Your task to perform on an android device: uninstall "Microsoft Outlook" Image 0: 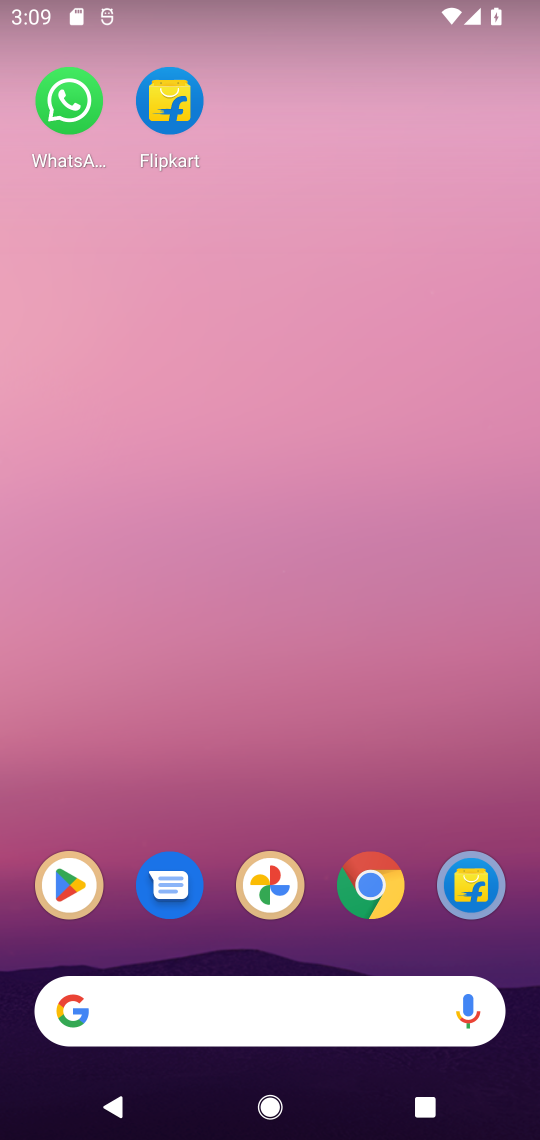
Step 0: click (75, 884)
Your task to perform on an android device: uninstall "Microsoft Outlook" Image 1: 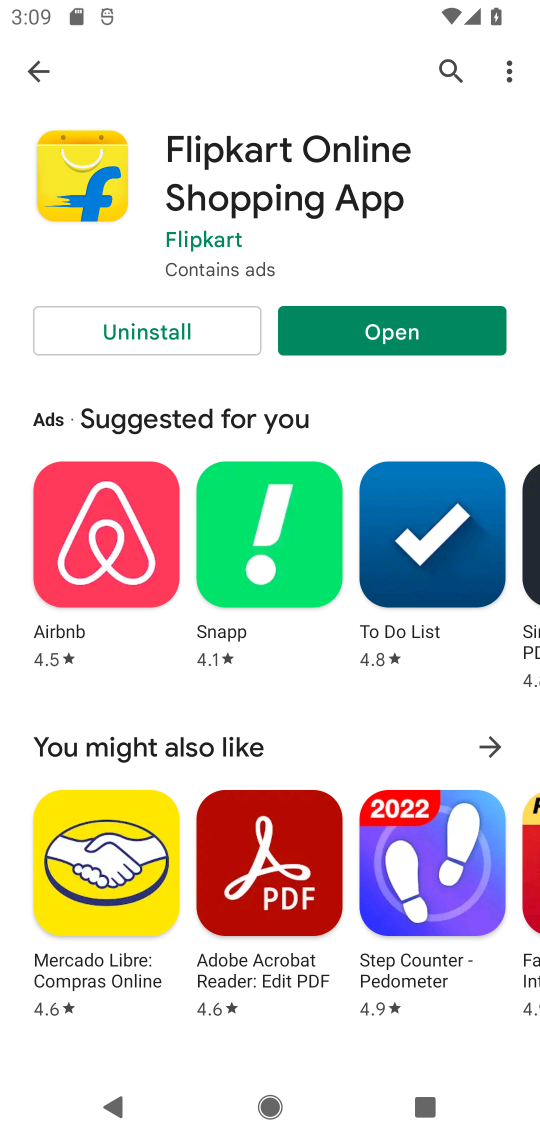
Step 1: click (442, 77)
Your task to perform on an android device: uninstall "Microsoft Outlook" Image 2: 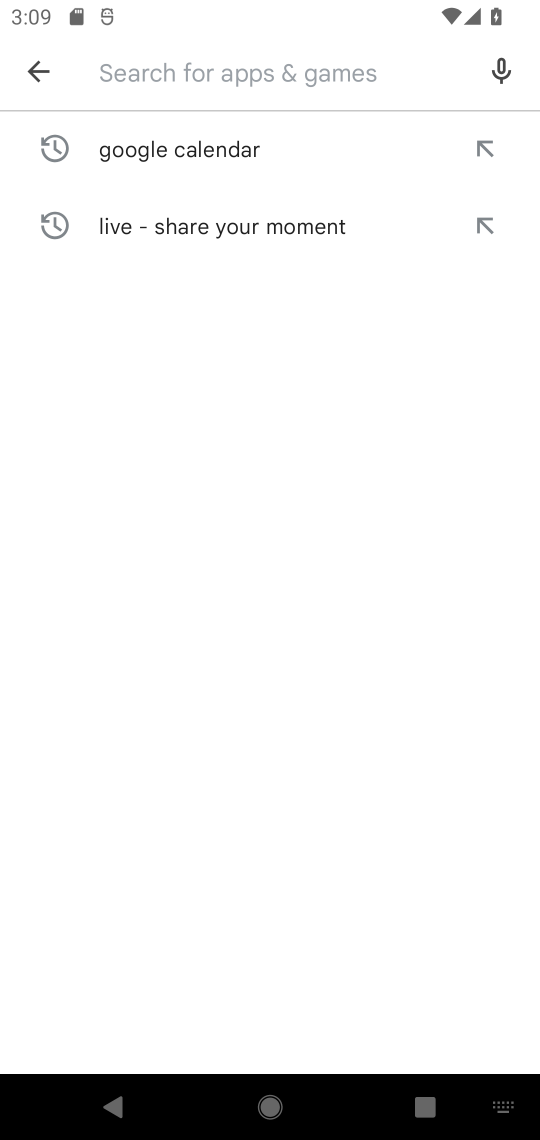
Step 2: type "Microsoft Outlook"
Your task to perform on an android device: uninstall "Microsoft Outlook" Image 3: 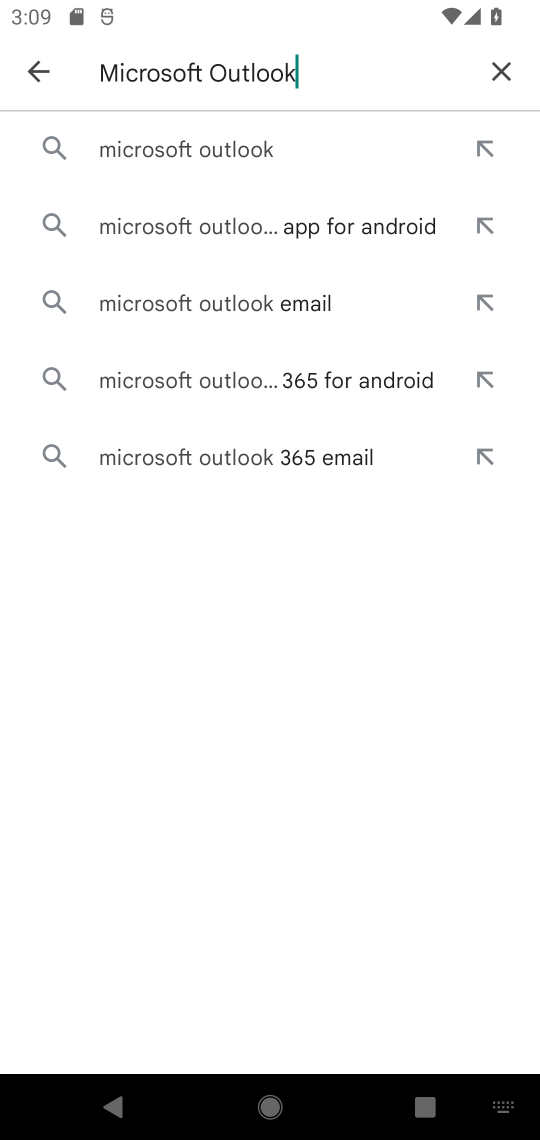
Step 3: click (231, 156)
Your task to perform on an android device: uninstall "Microsoft Outlook" Image 4: 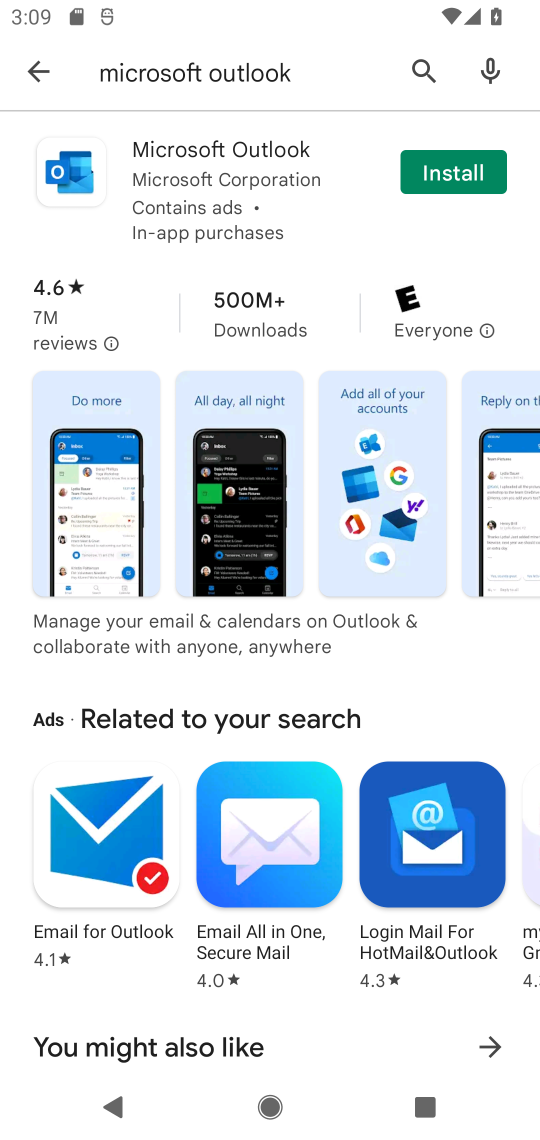
Step 4: task complete